Your task to perform on an android device: see sites visited before in the chrome app Image 0: 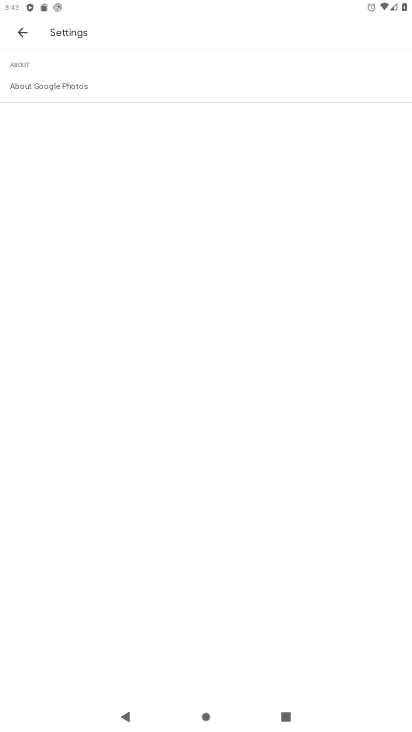
Step 0: press home button
Your task to perform on an android device: see sites visited before in the chrome app Image 1: 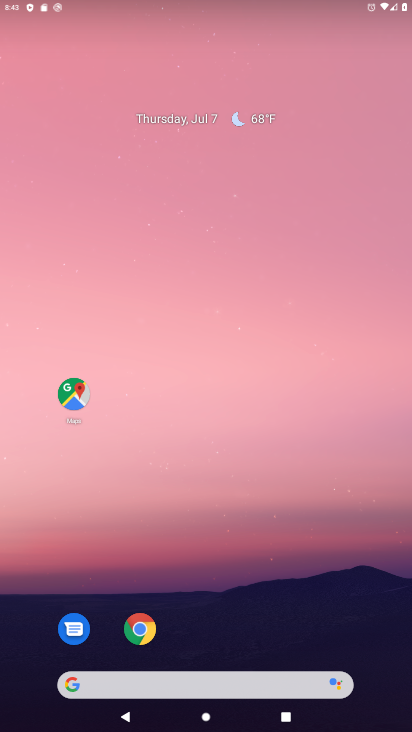
Step 1: drag from (215, 653) to (210, 605)
Your task to perform on an android device: see sites visited before in the chrome app Image 2: 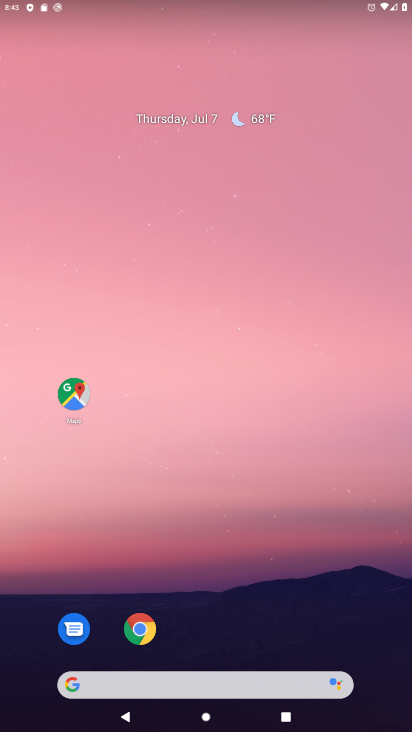
Step 2: click (146, 627)
Your task to perform on an android device: see sites visited before in the chrome app Image 3: 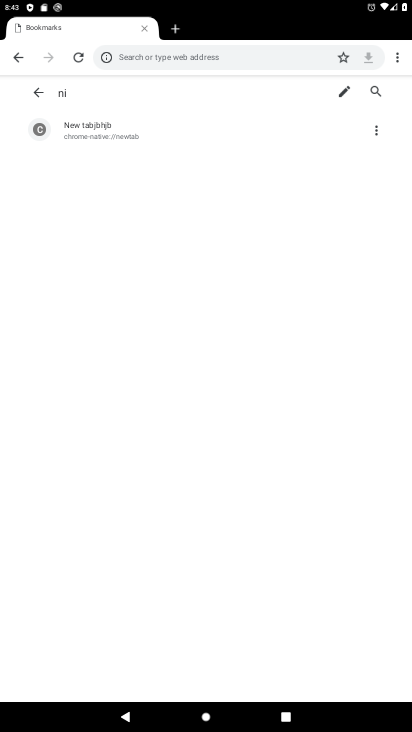
Step 3: click (392, 58)
Your task to perform on an android device: see sites visited before in the chrome app Image 4: 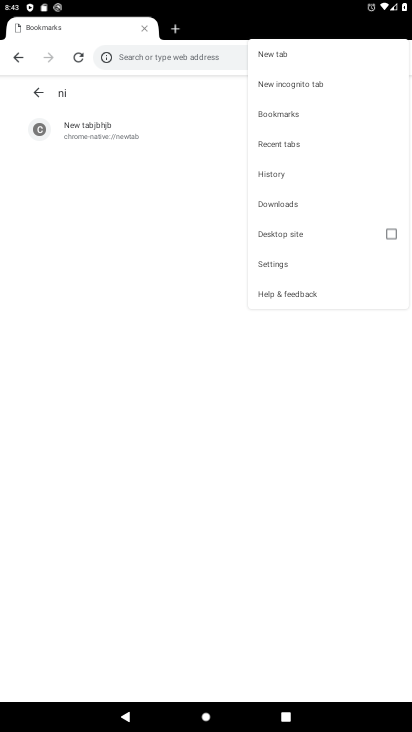
Step 4: click (285, 172)
Your task to perform on an android device: see sites visited before in the chrome app Image 5: 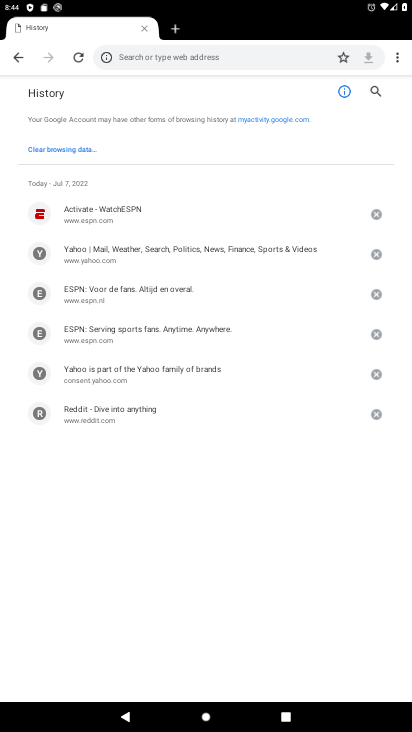
Step 5: task complete